Your task to perform on an android device: turn on translation in the chrome app Image 0: 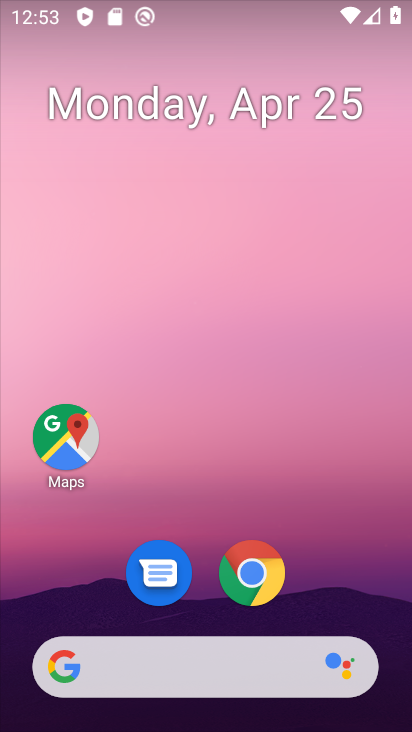
Step 0: click (243, 592)
Your task to perform on an android device: turn on translation in the chrome app Image 1: 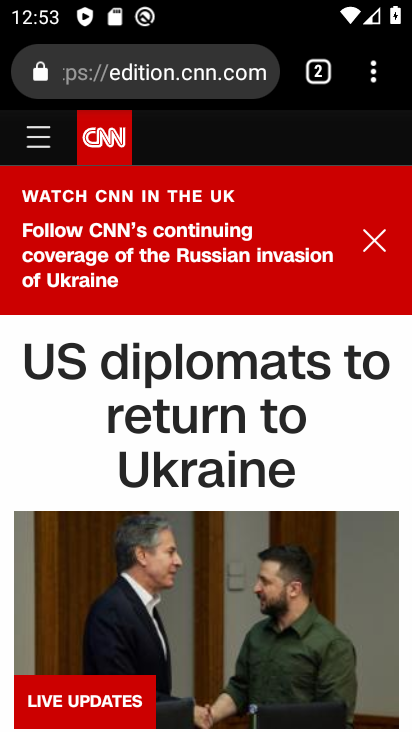
Step 1: click (374, 84)
Your task to perform on an android device: turn on translation in the chrome app Image 2: 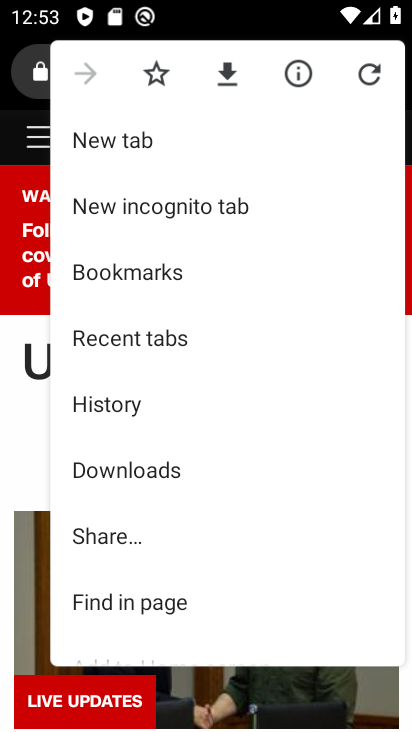
Step 2: drag from (213, 462) to (165, 312)
Your task to perform on an android device: turn on translation in the chrome app Image 3: 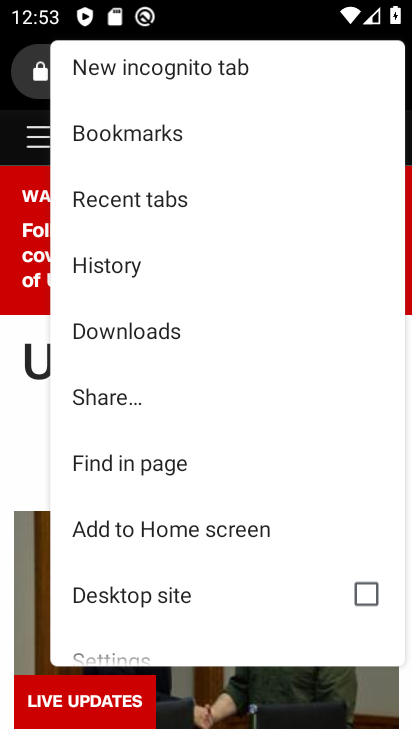
Step 3: click (119, 657)
Your task to perform on an android device: turn on translation in the chrome app Image 4: 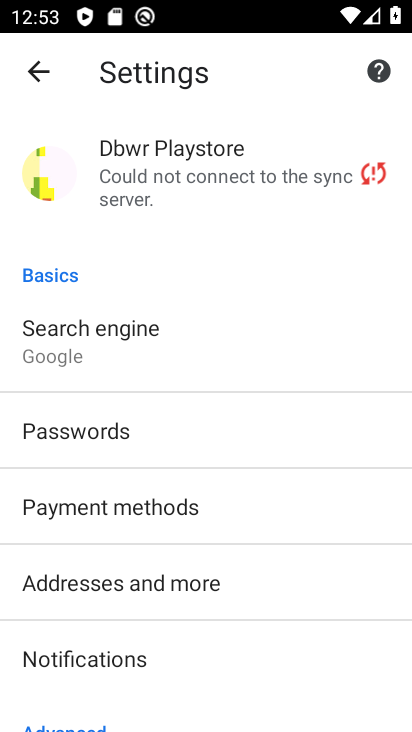
Step 4: drag from (225, 665) to (142, 291)
Your task to perform on an android device: turn on translation in the chrome app Image 5: 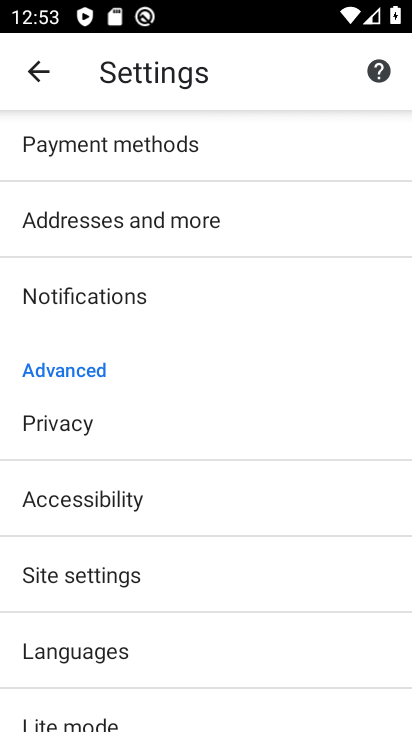
Step 5: click (128, 647)
Your task to perform on an android device: turn on translation in the chrome app Image 6: 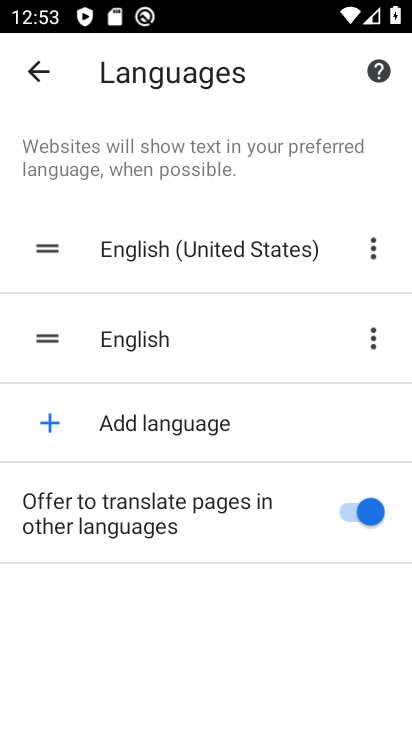
Step 6: task complete